Your task to perform on an android device: toggle translation in the chrome app Image 0: 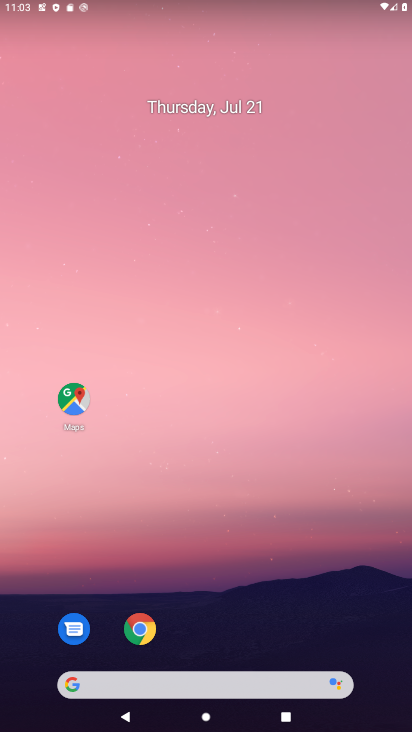
Step 0: click (136, 632)
Your task to perform on an android device: toggle translation in the chrome app Image 1: 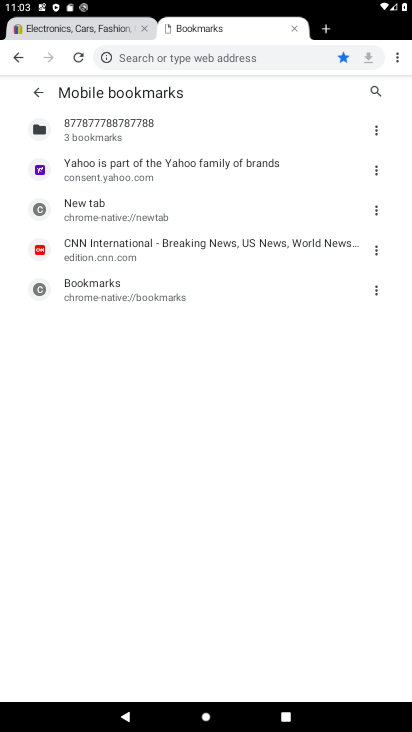
Step 1: click (395, 60)
Your task to perform on an android device: toggle translation in the chrome app Image 2: 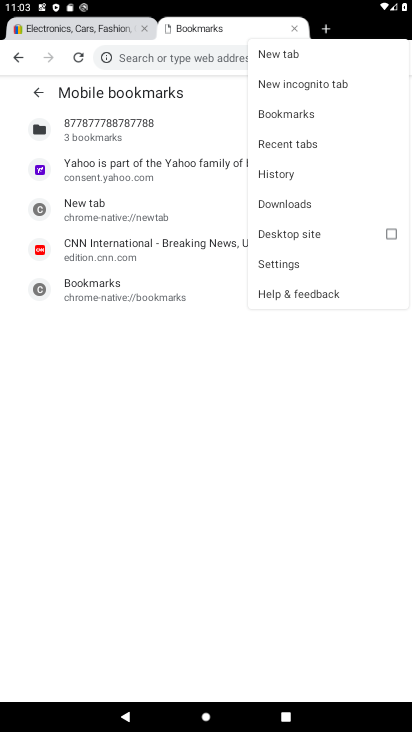
Step 2: press home button
Your task to perform on an android device: toggle translation in the chrome app Image 3: 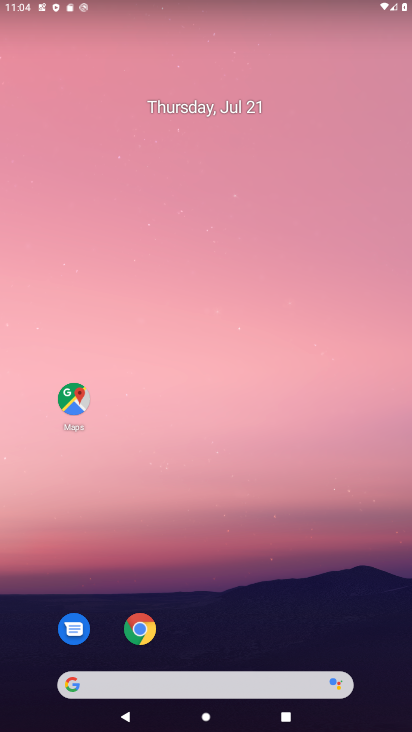
Step 3: drag from (252, 429) to (392, 62)
Your task to perform on an android device: toggle translation in the chrome app Image 4: 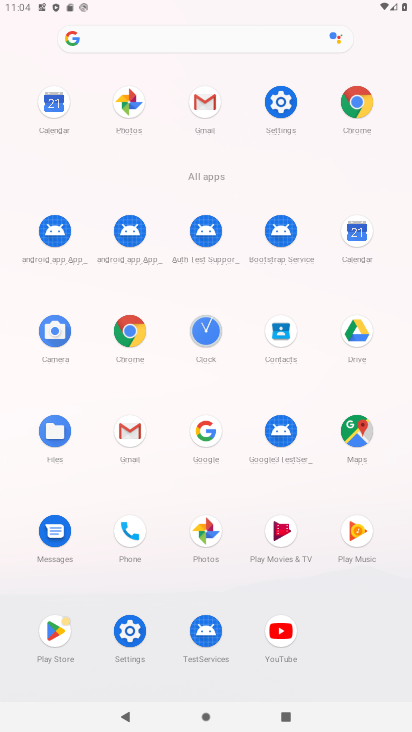
Step 4: click (355, 86)
Your task to perform on an android device: toggle translation in the chrome app Image 5: 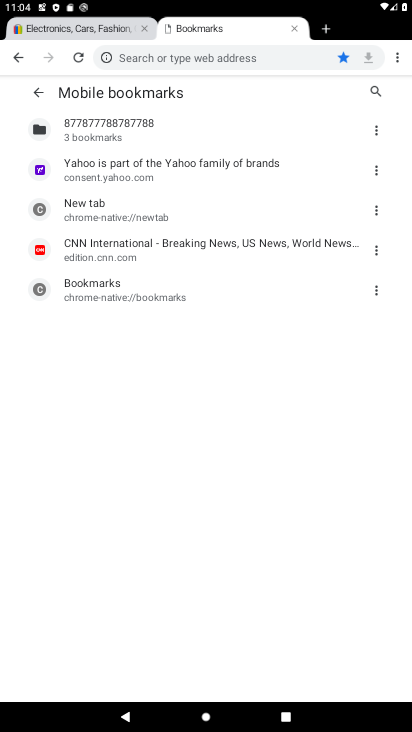
Step 5: task complete